Your task to perform on an android device: check google app version Image 0: 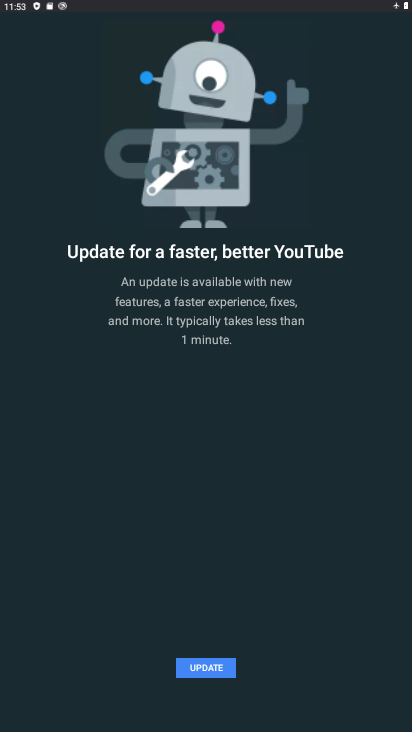
Step 0: drag from (283, 687) to (372, 61)
Your task to perform on an android device: check google app version Image 1: 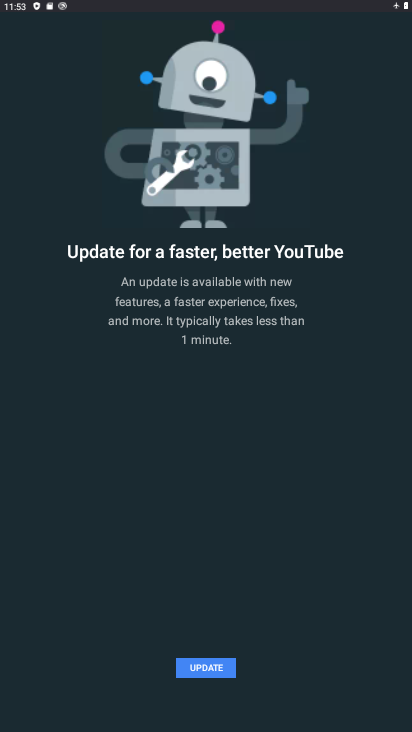
Step 1: press home button
Your task to perform on an android device: check google app version Image 2: 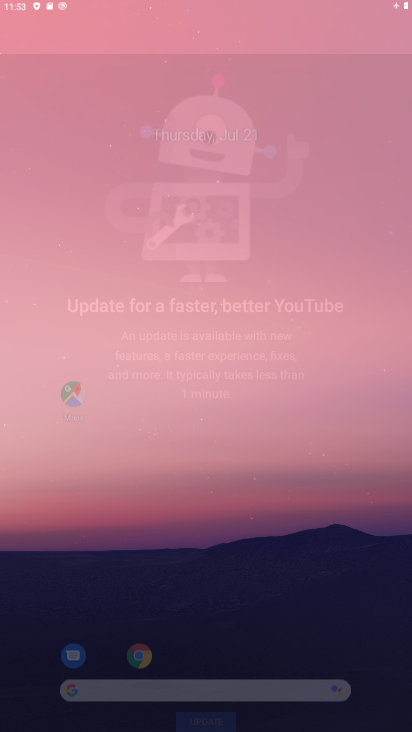
Step 2: drag from (192, 622) to (91, 0)
Your task to perform on an android device: check google app version Image 3: 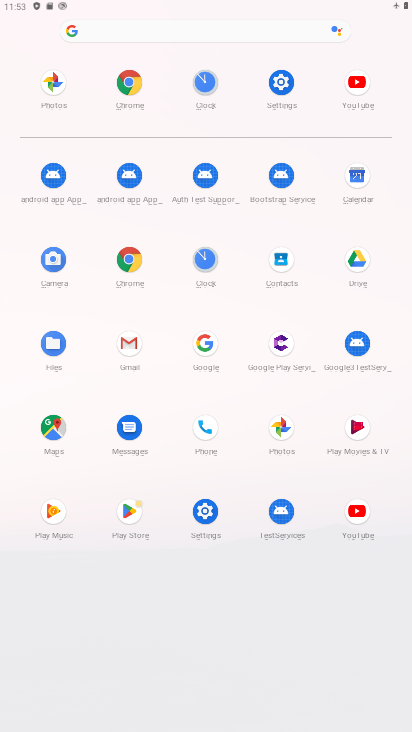
Step 3: click (190, 347)
Your task to perform on an android device: check google app version Image 4: 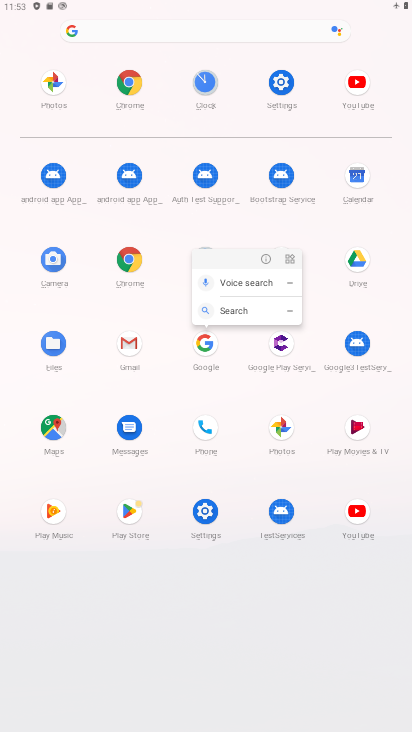
Step 4: click (268, 256)
Your task to perform on an android device: check google app version Image 5: 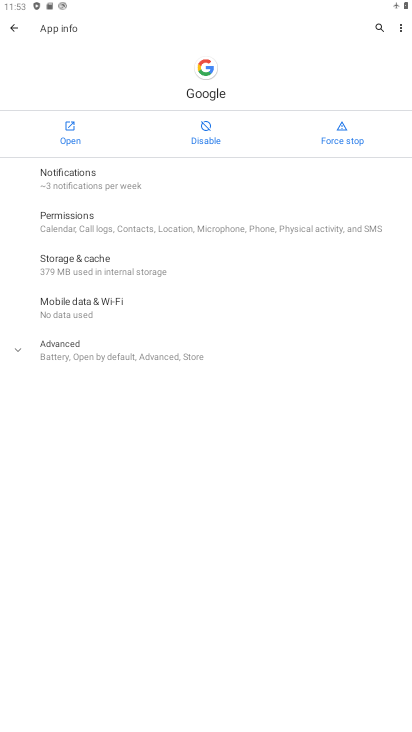
Step 5: click (65, 137)
Your task to perform on an android device: check google app version Image 6: 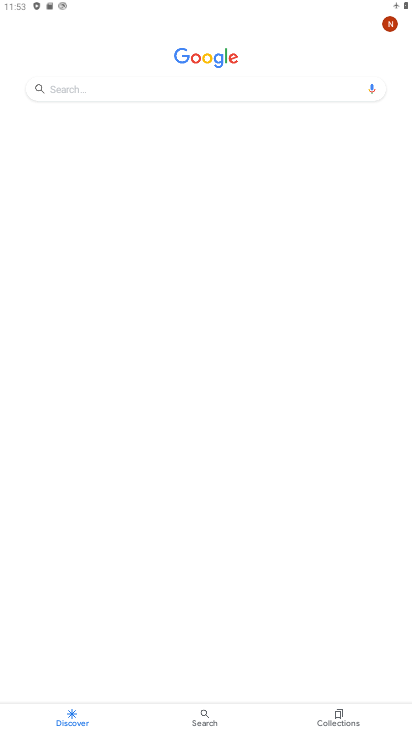
Step 6: click (387, 23)
Your task to perform on an android device: check google app version Image 7: 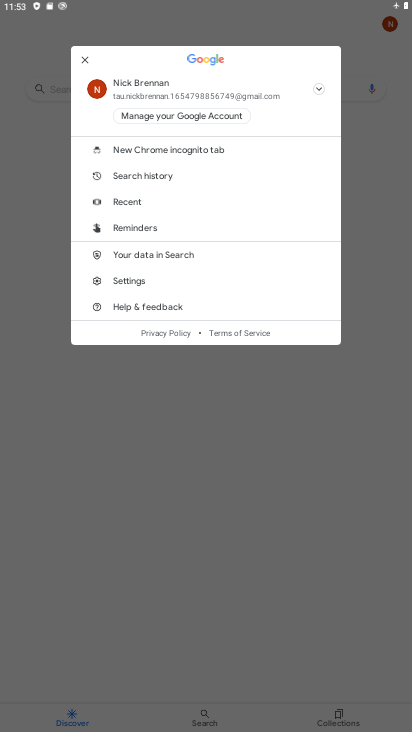
Step 7: click (129, 277)
Your task to perform on an android device: check google app version Image 8: 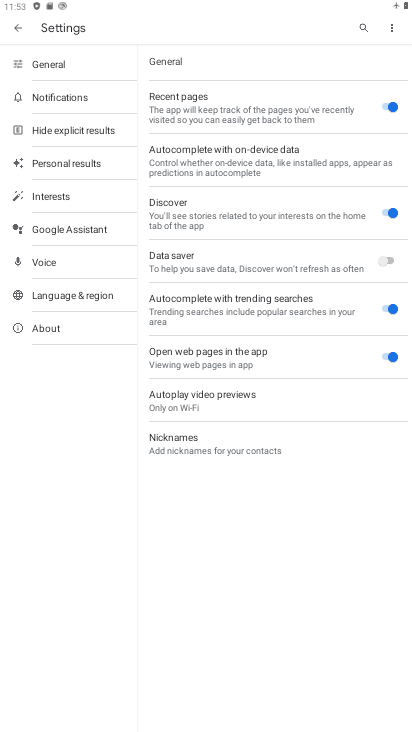
Step 8: click (72, 331)
Your task to perform on an android device: check google app version Image 9: 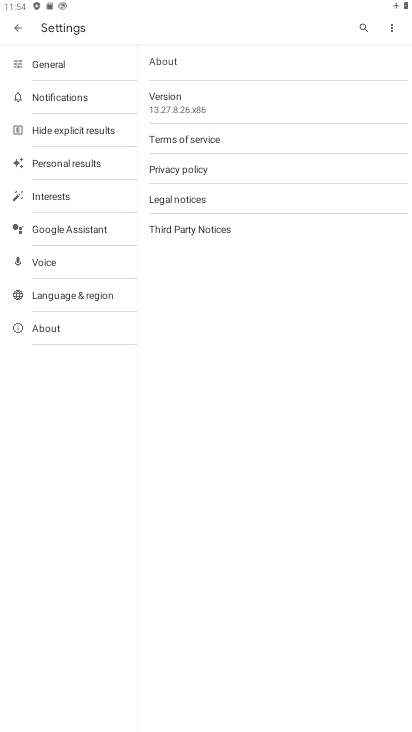
Step 9: click (189, 93)
Your task to perform on an android device: check google app version Image 10: 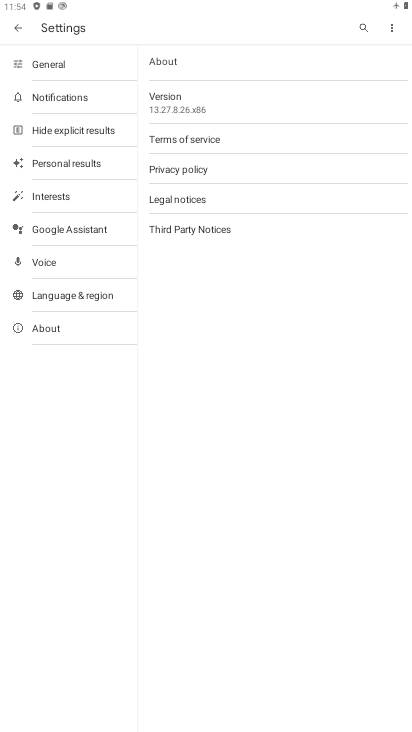
Step 10: drag from (270, 377) to (292, 138)
Your task to perform on an android device: check google app version Image 11: 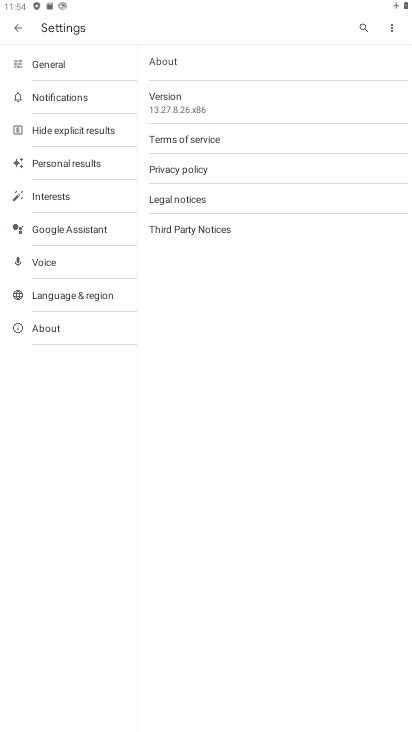
Step 11: drag from (231, 588) to (247, 336)
Your task to perform on an android device: check google app version Image 12: 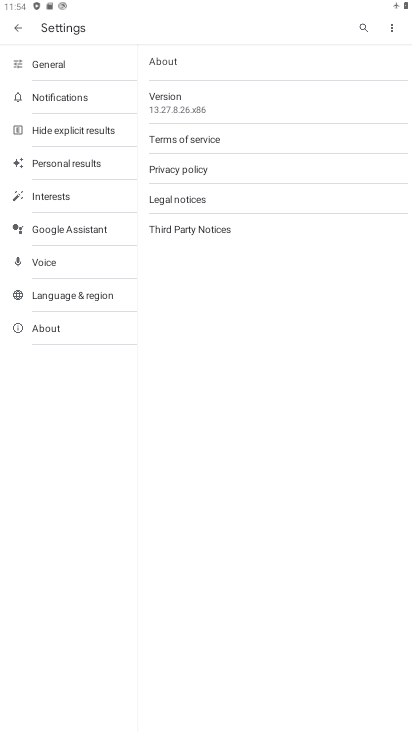
Step 12: click (208, 102)
Your task to perform on an android device: check google app version Image 13: 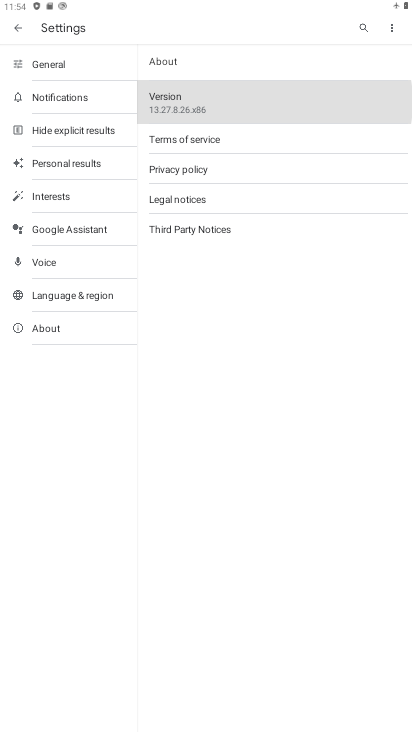
Step 13: task complete